Your task to perform on an android device: Open location settings Image 0: 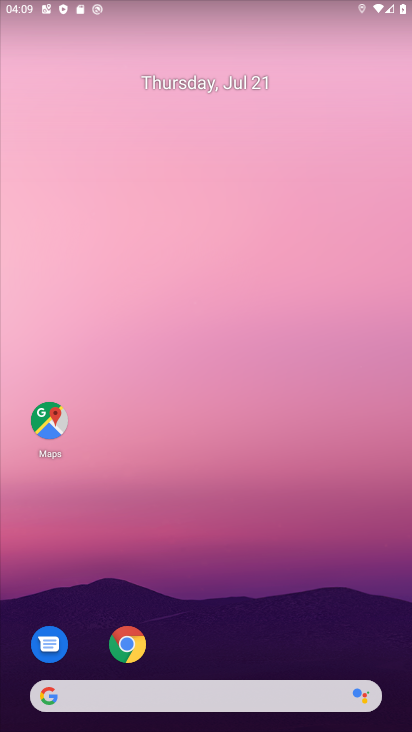
Step 0: drag from (280, 666) to (273, 47)
Your task to perform on an android device: Open location settings Image 1: 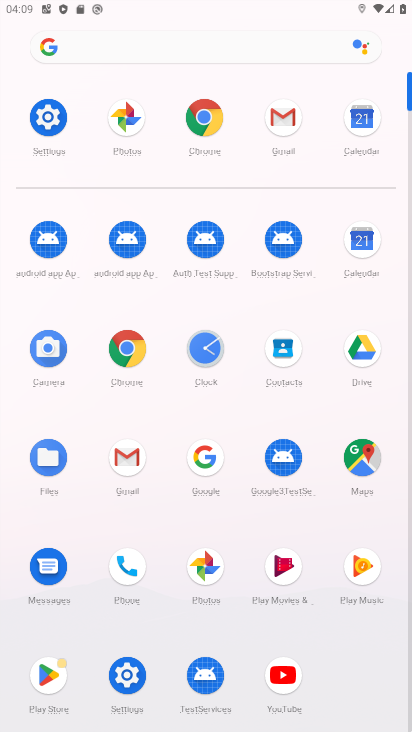
Step 1: click (48, 120)
Your task to perform on an android device: Open location settings Image 2: 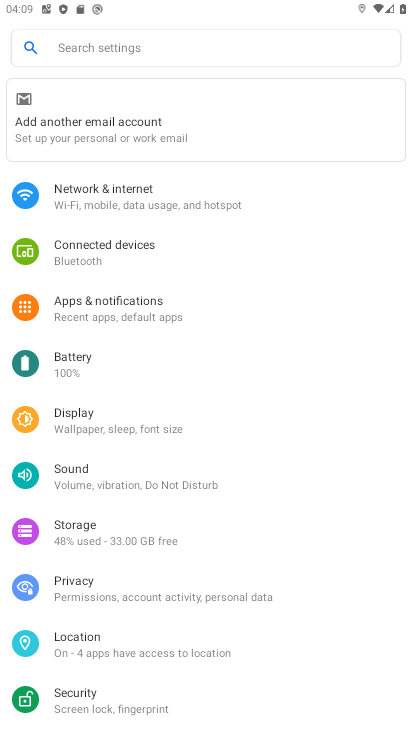
Step 2: click (70, 651)
Your task to perform on an android device: Open location settings Image 3: 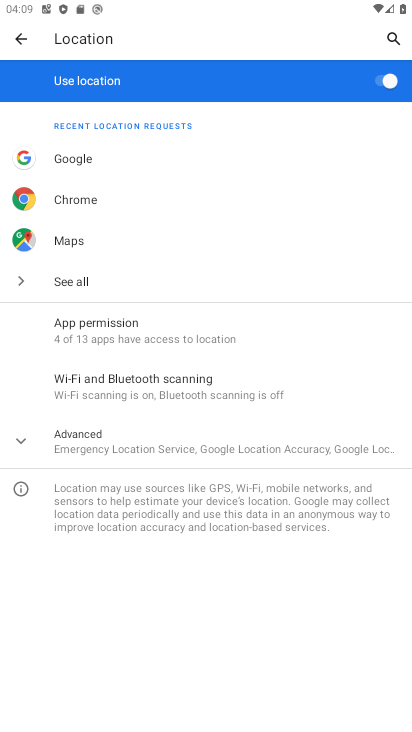
Step 3: task complete